Your task to perform on an android device: toggle notifications settings in the gmail app Image 0: 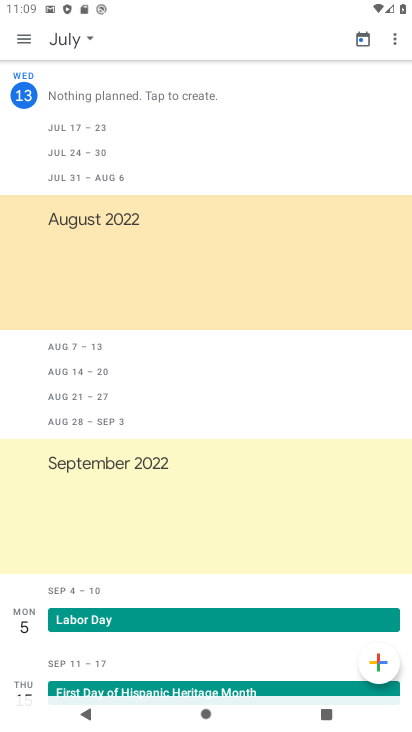
Step 0: press home button
Your task to perform on an android device: toggle notifications settings in the gmail app Image 1: 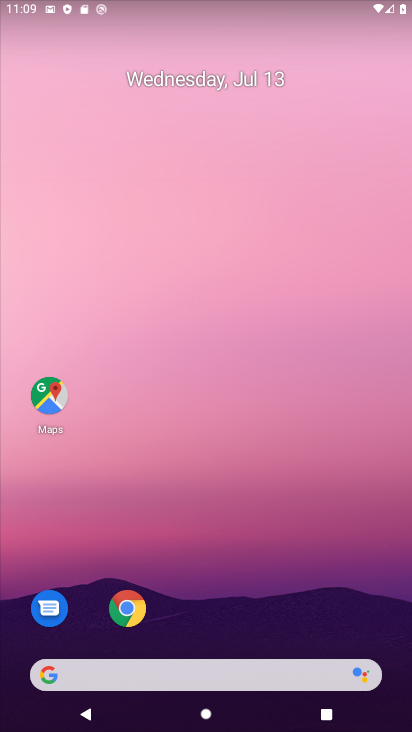
Step 1: drag from (244, 631) to (278, 44)
Your task to perform on an android device: toggle notifications settings in the gmail app Image 2: 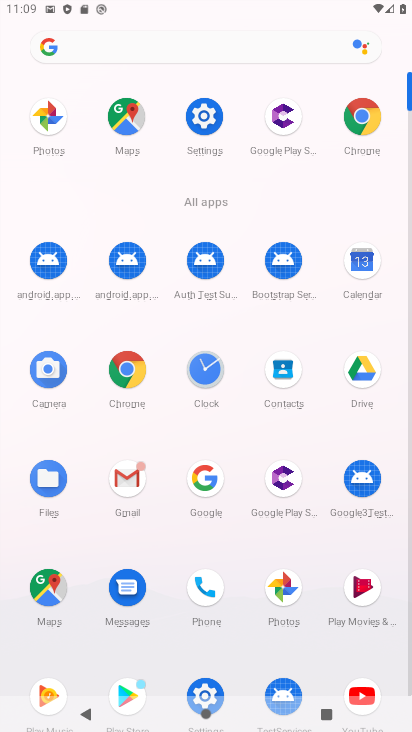
Step 2: click (120, 473)
Your task to perform on an android device: toggle notifications settings in the gmail app Image 3: 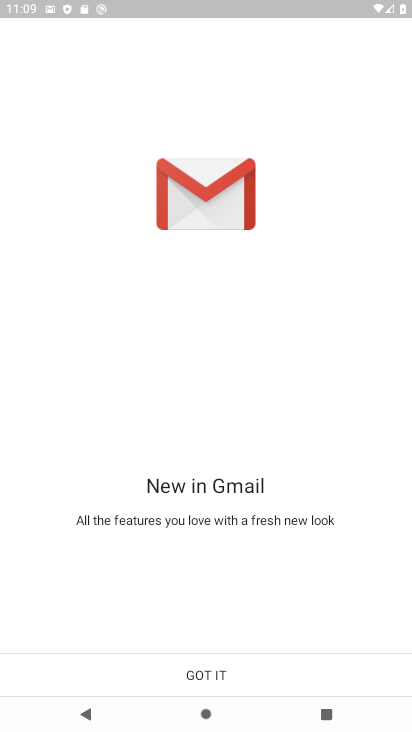
Step 3: click (188, 660)
Your task to perform on an android device: toggle notifications settings in the gmail app Image 4: 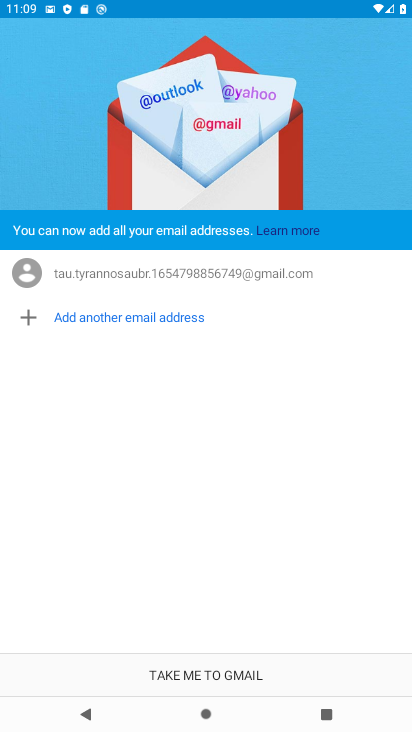
Step 4: click (188, 660)
Your task to perform on an android device: toggle notifications settings in the gmail app Image 5: 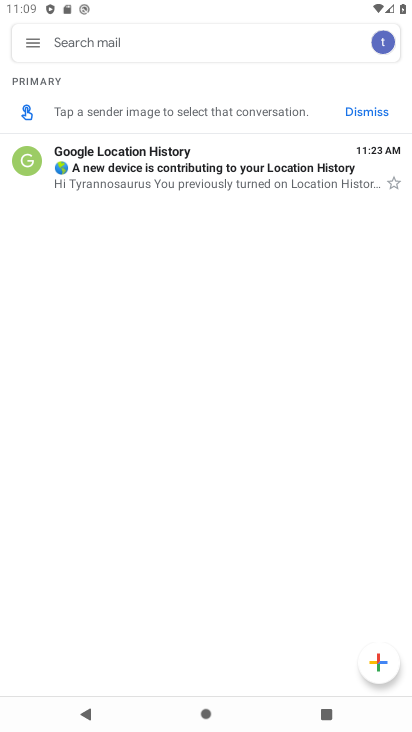
Step 5: click (27, 43)
Your task to perform on an android device: toggle notifications settings in the gmail app Image 6: 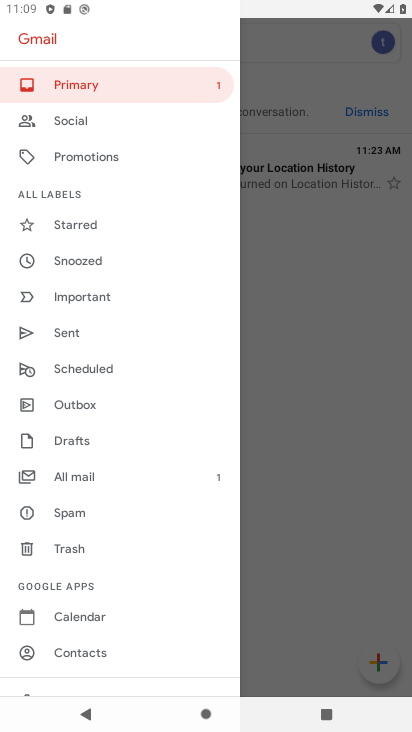
Step 6: drag from (72, 631) to (76, 235)
Your task to perform on an android device: toggle notifications settings in the gmail app Image 7: 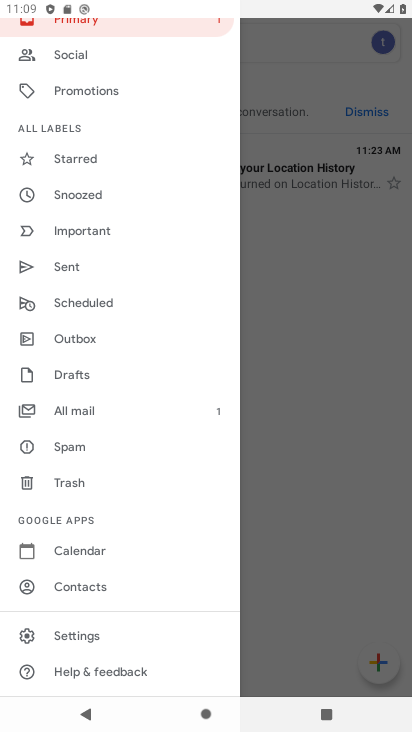
Step 7: click (79, 638)
Your task to perform on an android device: toggle notifications settings in the gmail app Image 8: 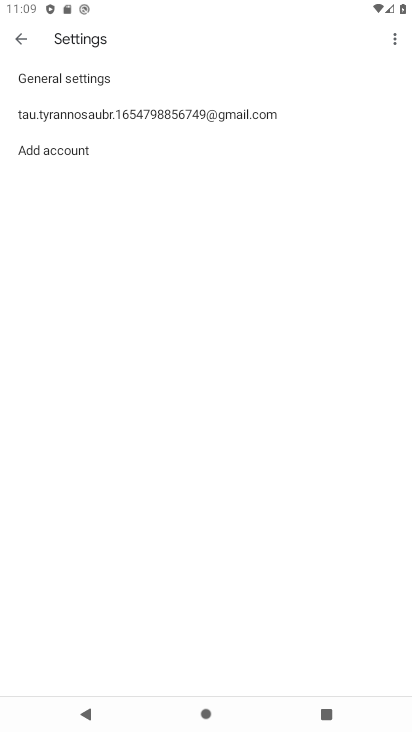
Step 8: click (237, 120)
Your task to perform on an android device: toggle notifications settings in the gmail app Image 9: 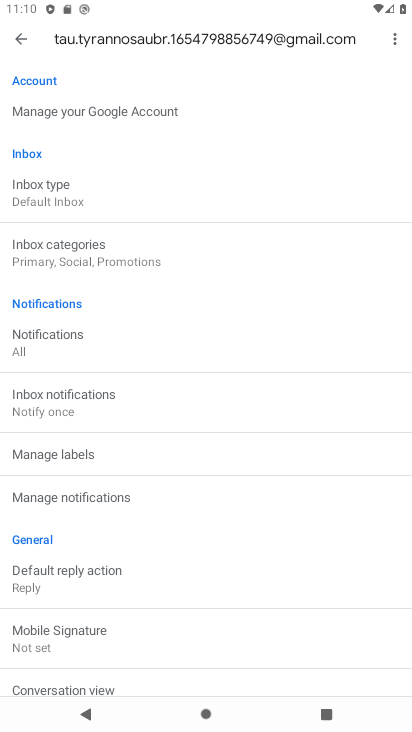
Step 9: click (49, 499)
Your task to perform on an android device: toggle notifications settings in the gmail app Image 10: 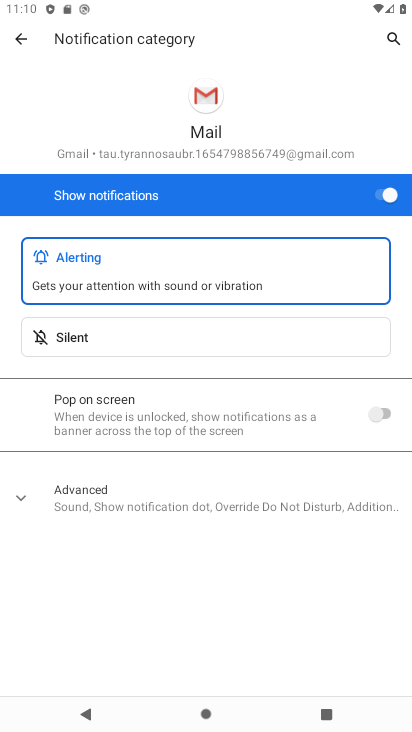
Step 10: click (387, 197)
Your task to perform on an android device: toggle notifications settings in the gmail app Image 11: 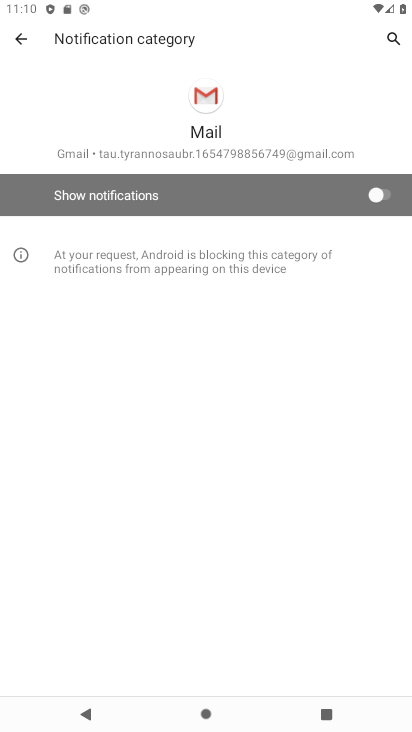
Step 11: task complete